Your task to perform on an android device: Open my contact list Image 0: 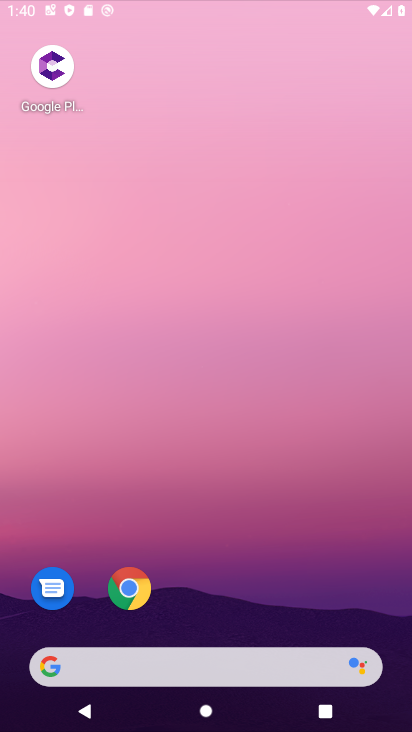
Step 0: drag from (243, 653) to (312, 29)
Your task to perform on an android device: Open my contact list Image 1: 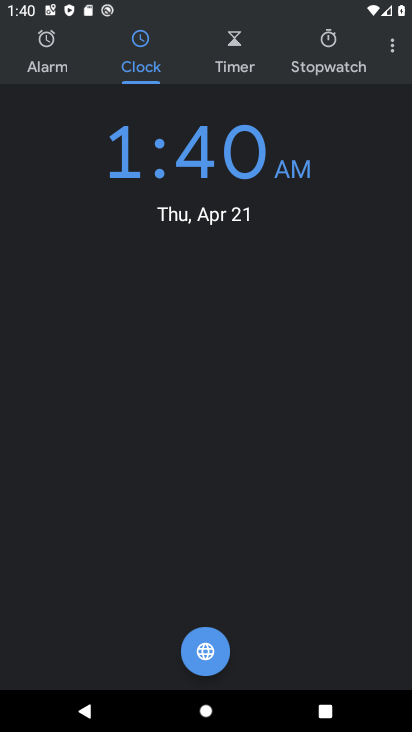
Step 1: press home button
Your task to perform on an android device: Open my contact list Image 2: 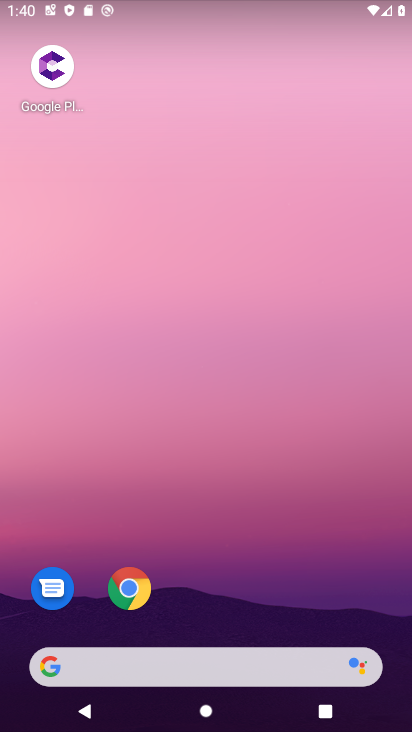
Step 2: drag from (253, 627) to (253, 140)
Your task to perform on an android device: Open my contact list Image 3: 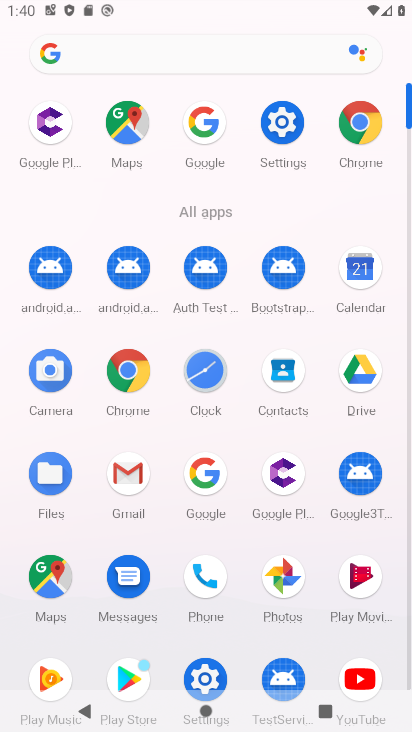
Step 3: click (277, 398)
Your task to perform on an android device: Open my contact list Image 4: 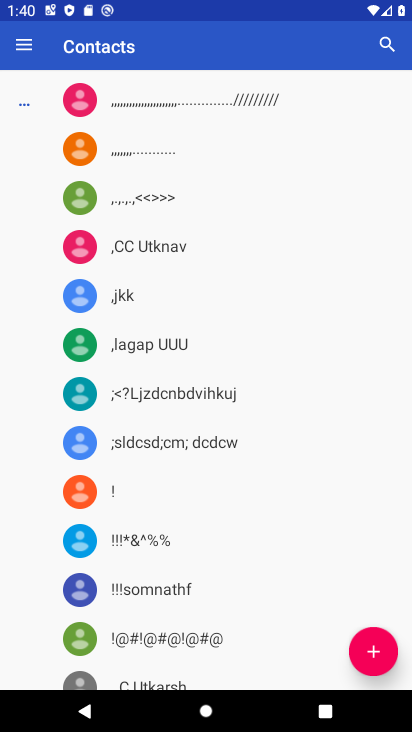
Step 4: task complete